Your task to perform on an android device: turn on the 24-hour format for clock Image 0: 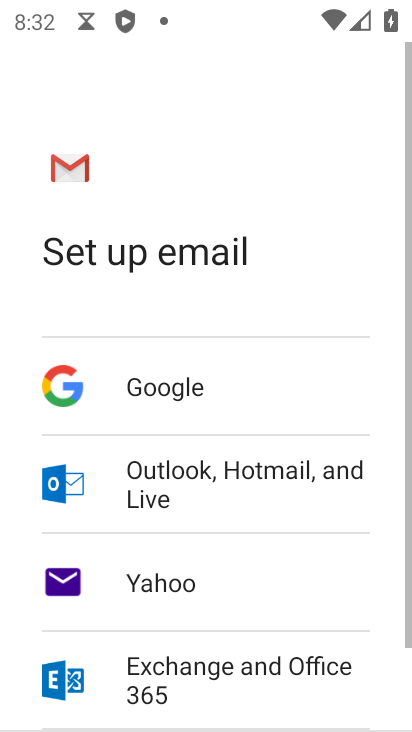
Step 0: press home button
Your task to perform on an android device: turn on the 24-hour format for clock Image 1: 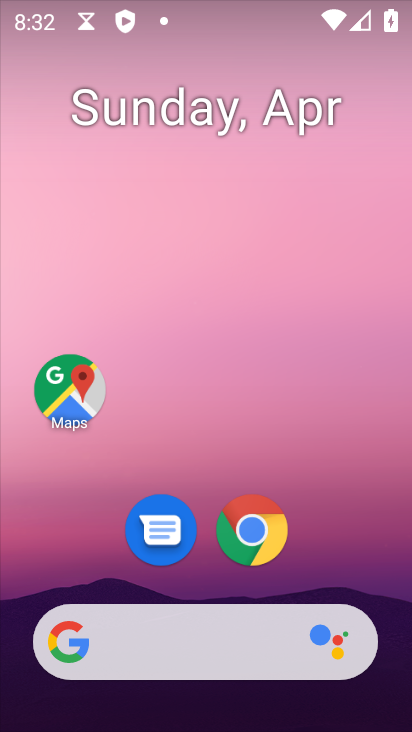
Step 1: drag from (211, 568) to (231, 19)
Your task to perform on an android device: turn on the 24-hour format for clock Image 2: 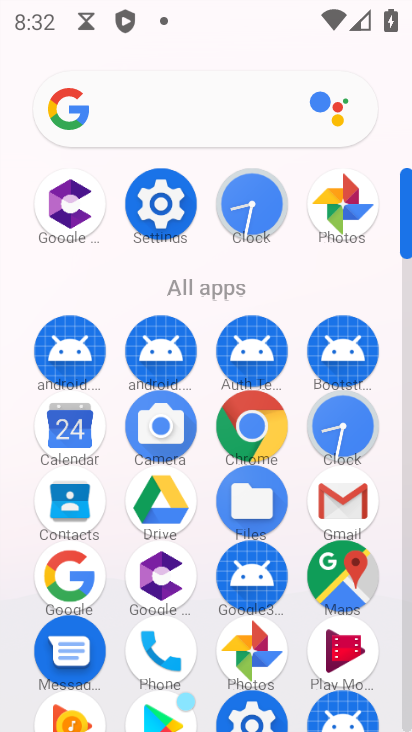
Step 2: click (350, 442)
Your task to perform on an android device: turn on the 24-hour format for clock Image 3: 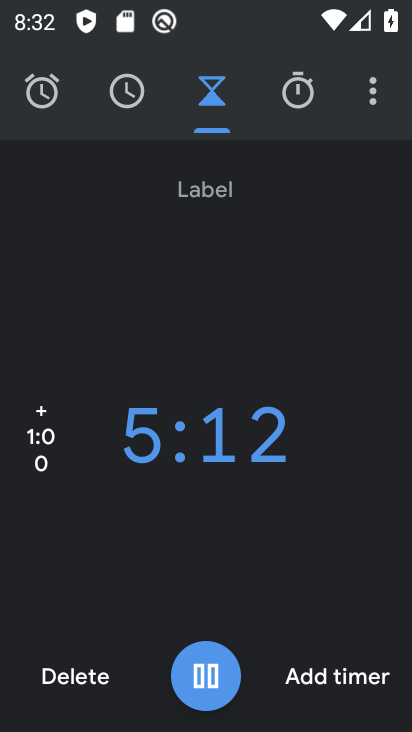
Step 3: click (378, 106)
Your task to perform on an android device: turn on the 24-hour format for clock Image 4: 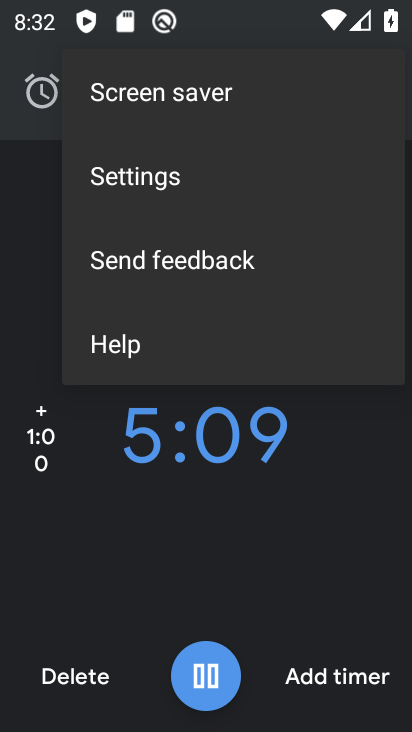
Step 4: click (221, 190)
Your task to perform on an android device: turn on the 24-hour format for clock Image 5: 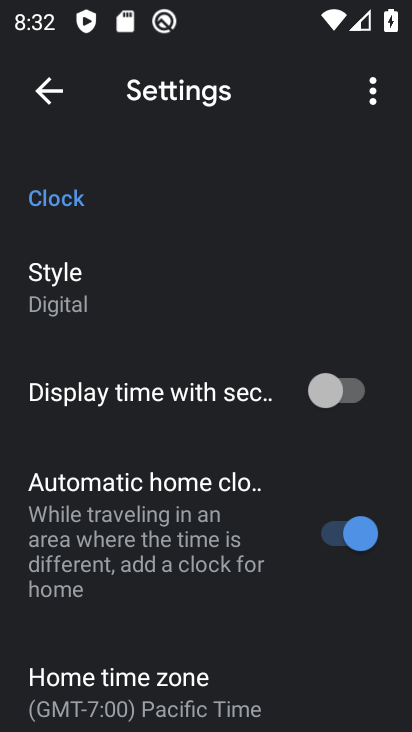
Step 5: drag from (197, 544) to (200, 300)
Your task to perform on an android device: turn on the 24-hour format for clock Image 6: 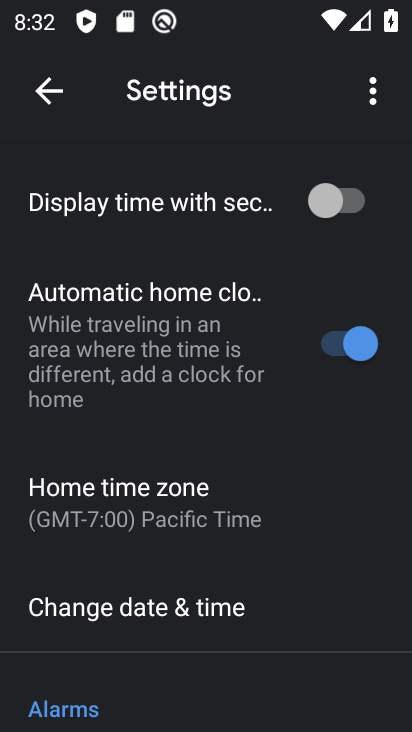
Step 6: click (184, 623)
Your task to perform on an android device: turn on the 24-hour format for clock Image 7: 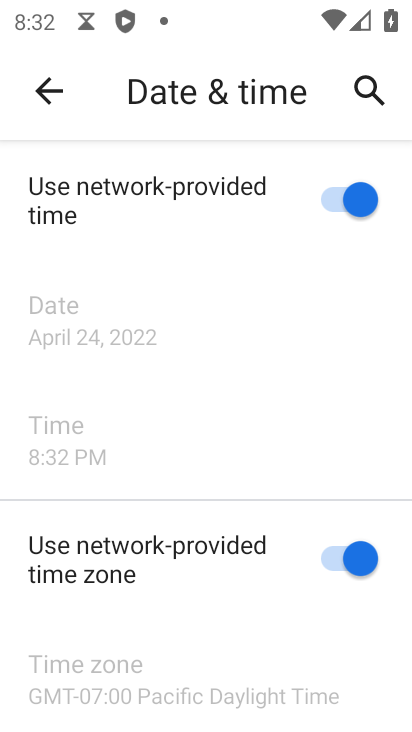
Step 7: drag from (211, 655) to (210, 506)
Your task to perform on an android device: turn on the 24-hour format for clock Image 8: 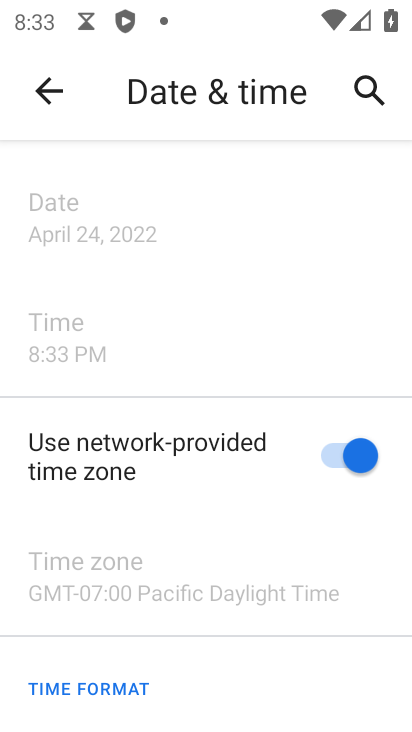
Step 8: drag from (310, 642) to (310, 333)
Your task to perform on an android device: turn on the 24-hour format for clock Image 9: 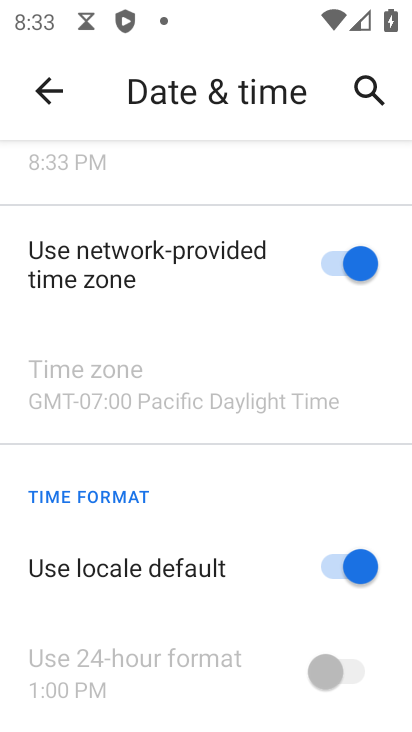
Step 9: click (356, 561)
Your task to perform on an android device: turn on the 24-hour format for clock Image 10: 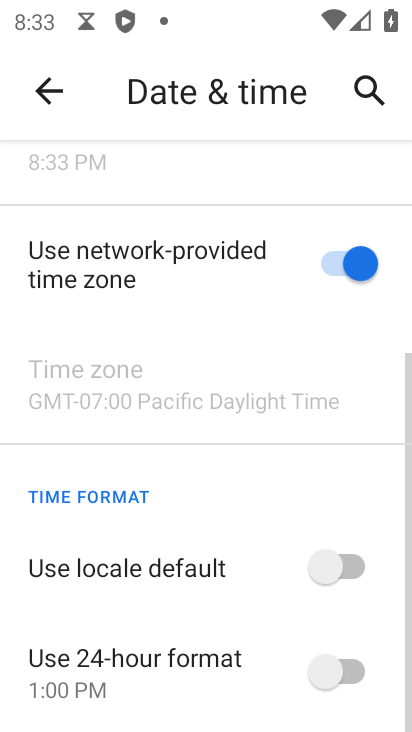
Step 10: click (326, 683)
Your task to perform on an android device: turn on the 24-hour format for clock Image 11: 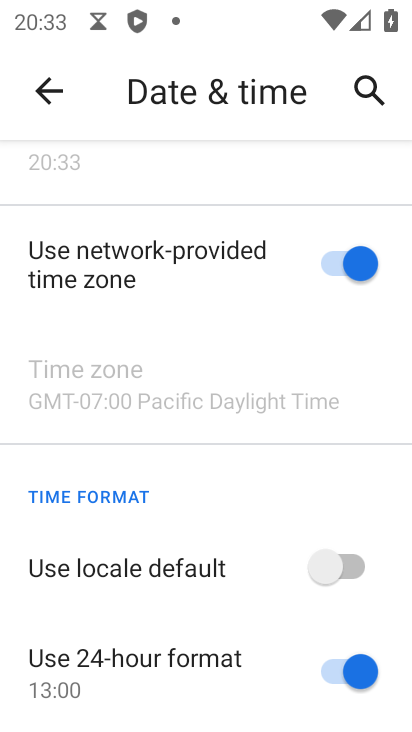
Step 11: task complete